Your task to perform on an android device: turn on translation in the chrome app Image 0: 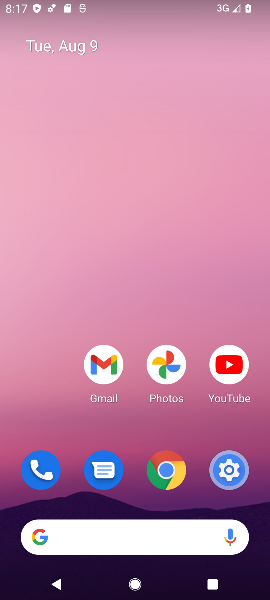
Step 0: click (166, 471)
Your task to perform on an android device: turn on translation in the chrome app Image 1: 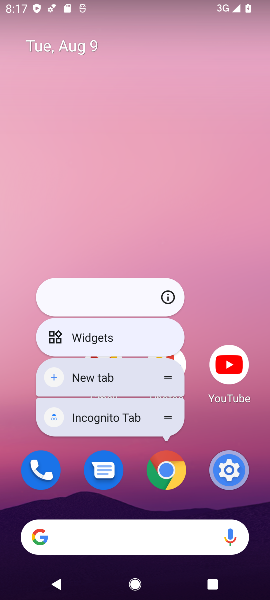
Step 1: click (166, 471)
Your task to perform on an android device: turn on translation in the chrome app Image 2: 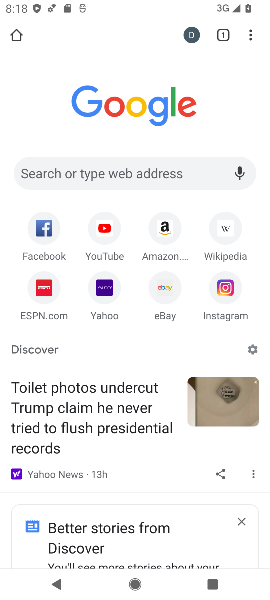
Step 2: click (251, 36)
Your task to perform on an android device: turn on translation in the chrome app Image 3: 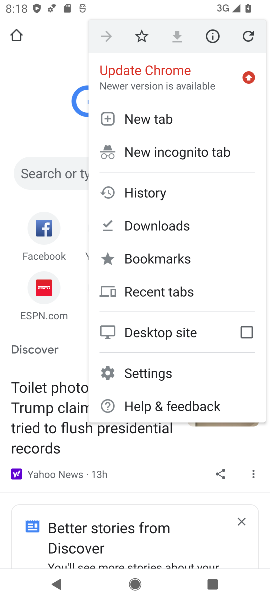
Step 3: click (149, 370)
Your task to perform on an android device: turn on translation in the chrome app Image 4: 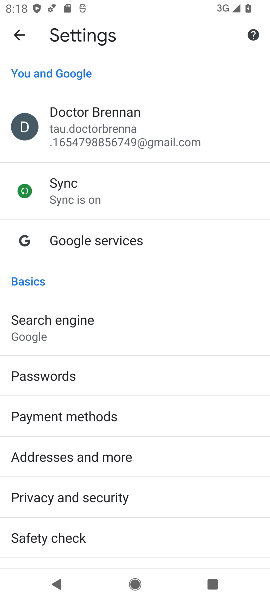
Step 4: drag from (88, 492) to (153, 374)
Your task to perform on an android device: turn on translation in the chrome app Image 5: 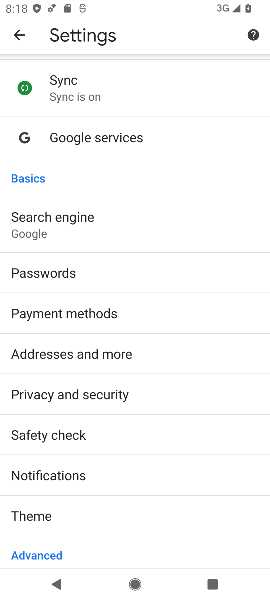
Step 5: drag from (139, 490) to (182, 414)
Your task to perform on an android device: turn on translation in the chrome app Image 6: 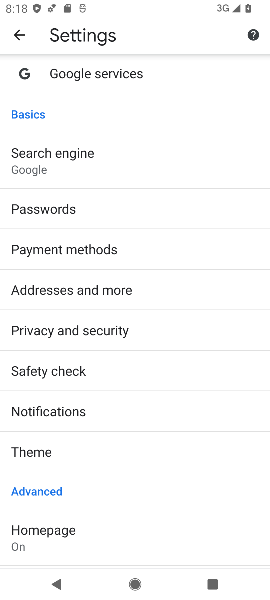
Step 6: drag from (140, 506) to (187, 439)
Your task to perform on an android device: turn on translation in the chrome app Image 7: 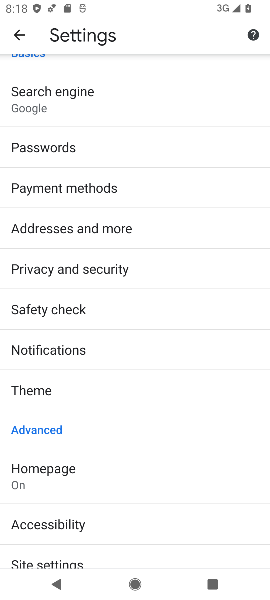
Step 7: drag from (128, 518) to (171, 436)
Your task to perform on an android device: turn on translation in the chrome app Image 8: 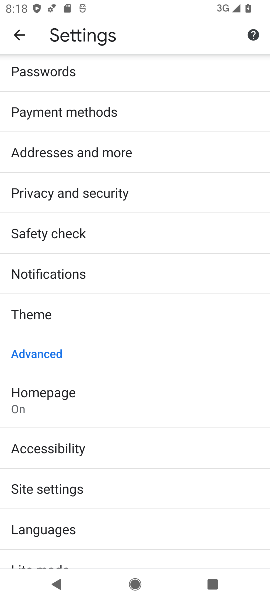
Step 8: click (52, 529)
Your task to perform on an android device: turn on translation in the chrome app Image 9: 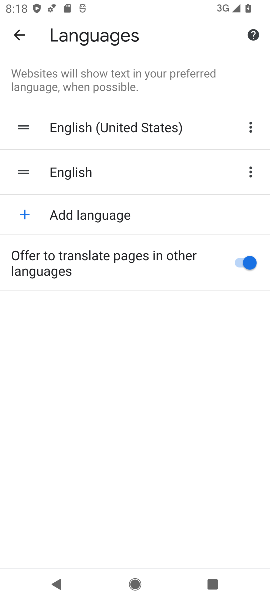
Step 9: task complete